Your task to perform on an android device: Show me the alarms in the clock app Image 0: 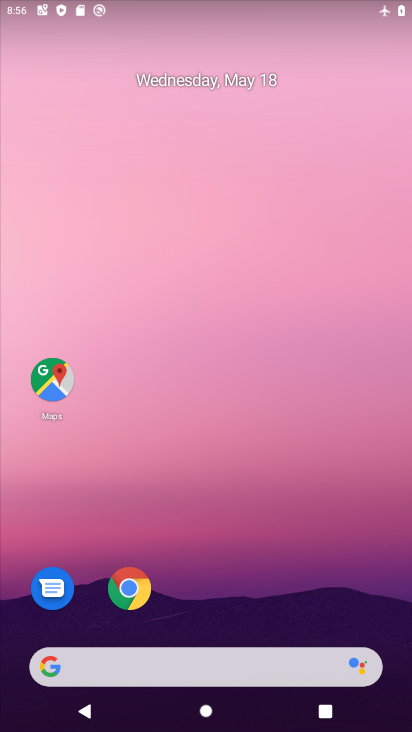
Step 0: drag from (316, 578) to (304, 22)
Your task to perform on an android device: Show me the alarms in the clock app Image 1: 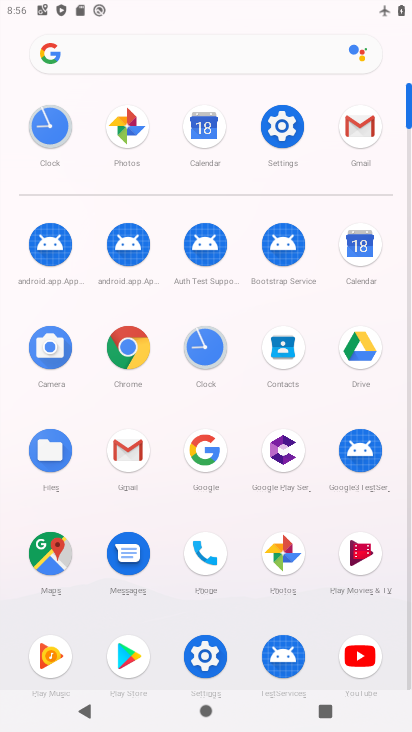
Step 1: click (45, 122)
Your task to perform on an android device: Show me the alarms in the clock app Image 2: 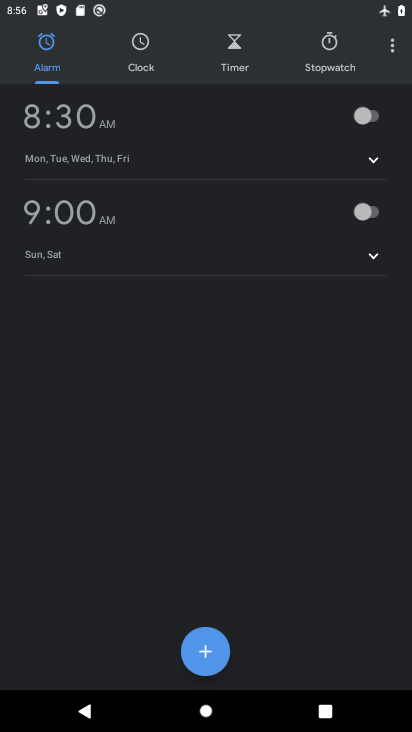
Step 2: task complete